Your task to perform on an android device: Set the phone to "Do not disturb". Image 0: 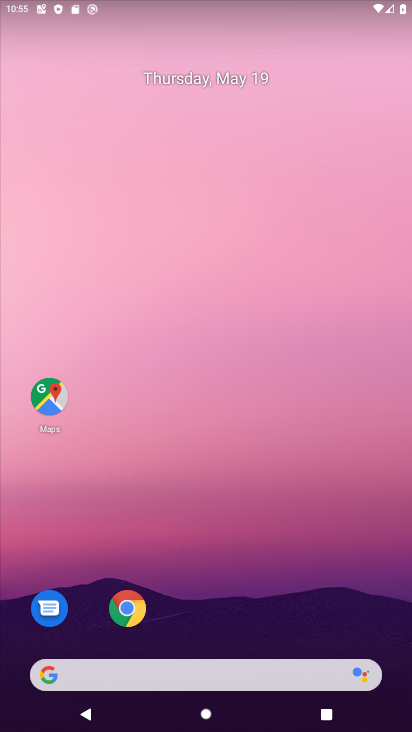
Step 0: drag from (349, 493) to (340, 331)
Your task to perform on an android device: Set the phone to "Do not disturb". Image 1: 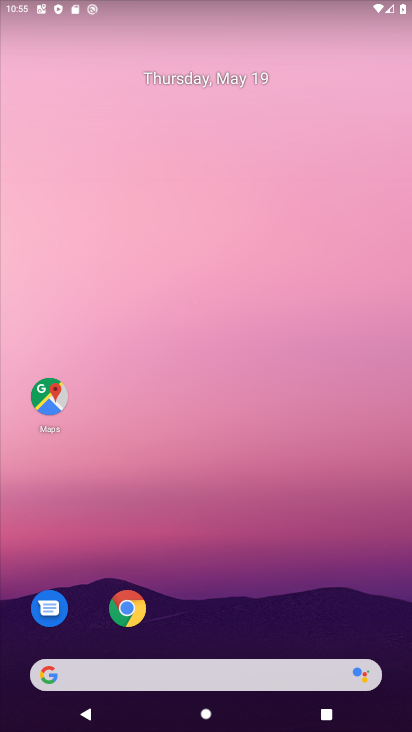
Step 1: drag from (393, 711) to (399, 477)
Your task to perform on an android device: Set the phone to "Do not disturb". Image 2: 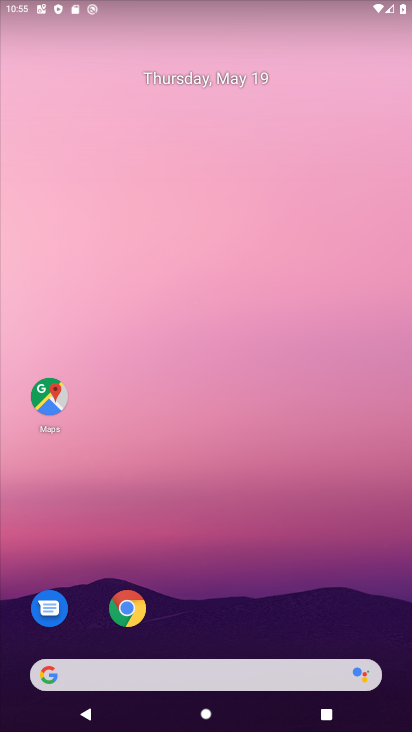
Step 2: click (396, 365)
Your task to perform on an android device: Set the phone to "Do not disturb". Image 3: 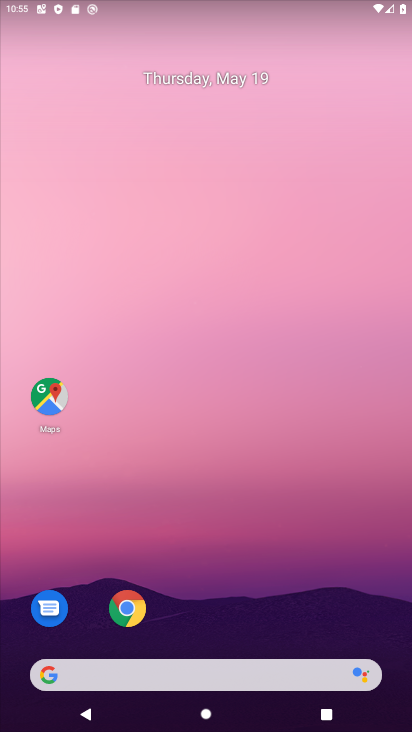
Step 3: drag from (399, 710) to (394, 560)
Your task to perform on an android device: Set the phone to "Do not disturb". Image 4: 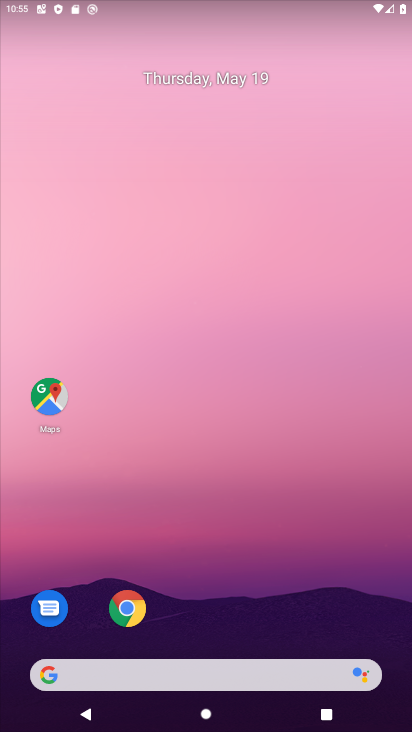
Step 4: drag from (398, 703) to (399, 259)
Your task to perform on an android device: Set the phone to "Do not disturb". Image 5: 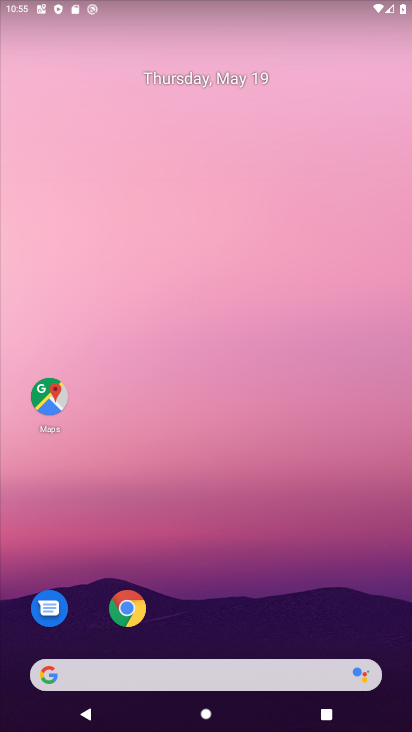
Step 5: drag from (395, 659) to (371, 218)
Your task to perform on an android device: Set the phone to "Do not disturb". Image 6: 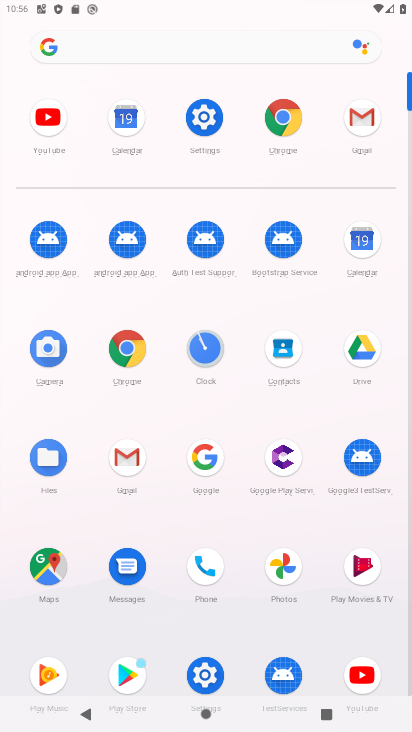
Step 6: click (208, 125)
Your task to perform on an android device: Set the phone to "Do not disturb". Image 7: 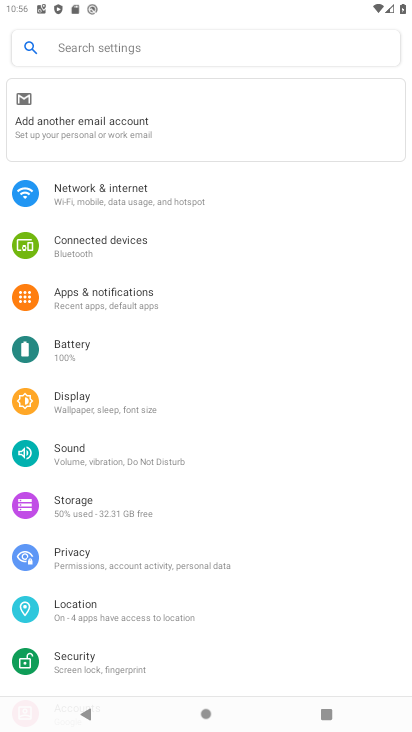
Step 7: click (73, 445)
Your task to perform on an android device: Set the phone to "Do not disturb". Image 8: 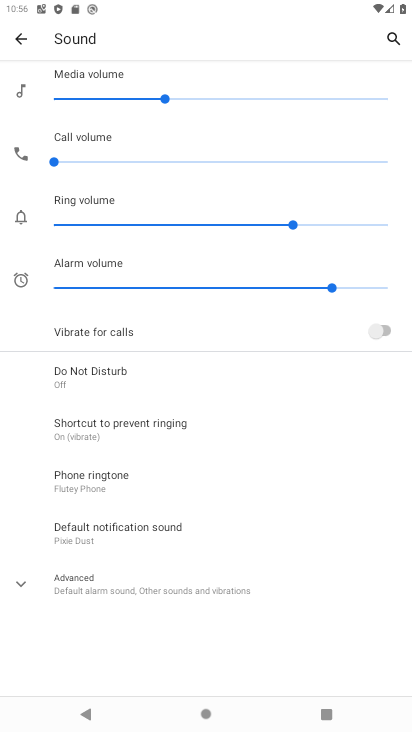
Step 8: click (83, 371)
Your task to perform on an android device: Set the phone to "Do not disturb". Image 9: 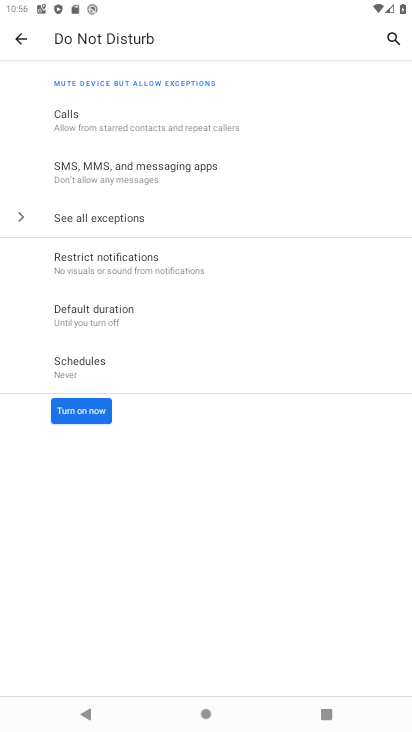
Step 9: click (102, 405)
Your task to perform on an android device: Set the phone to "Do not disturb". Image 10: 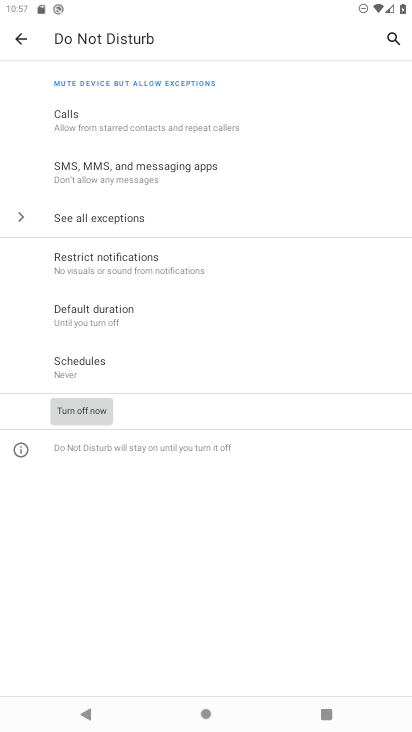
Step 10: task complete